Your task to perform on an android device: Open calendar and show me the third week of next month Image 0: 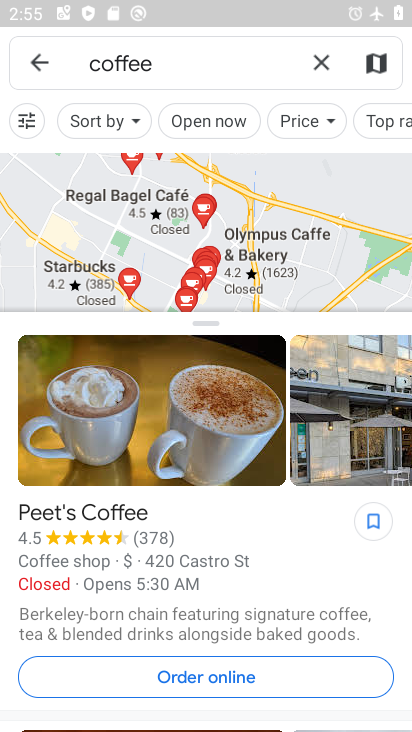
Step 0: press back button
Your task to perform on an android device: Open calendar and show me the third week of next month Image 1: 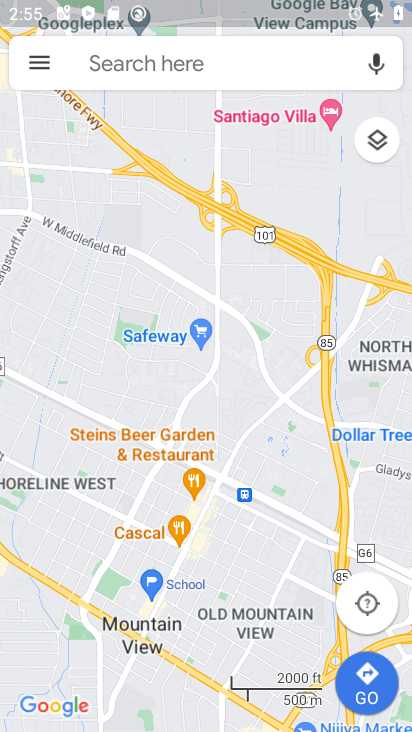
Step 1: press back button
Your task to perform on an android device: Open calendar and show me the third week of next month Image 2: 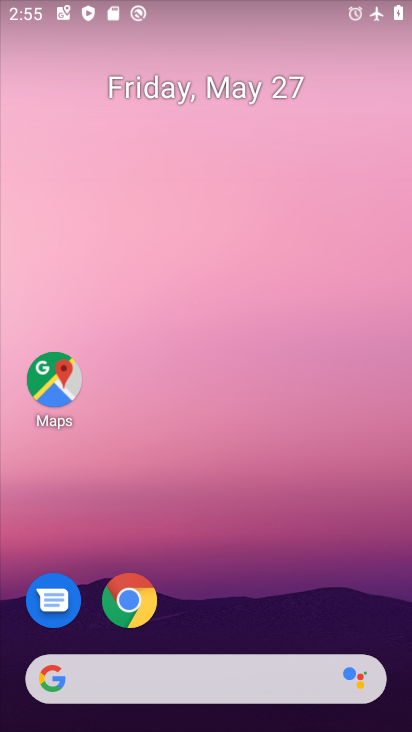
Step 2: drag from (258, 558) to (177, 5)
Your task to perform on an android device: Open calendar and show me the third week of next month Image 3: 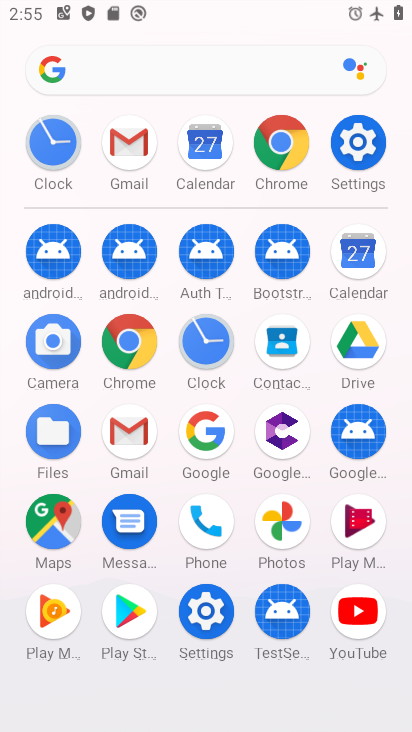
Step 3: drag from (4, 586) to (24, 252)
Your task to perform on an android device: Open calendar and show me the third week of next month Image 4: 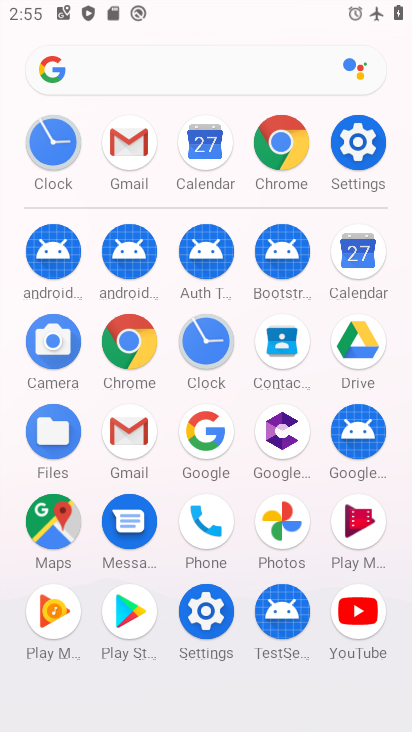
Step 4: click (357, 247)
Your task to perform on an android device: Open calendar and show me the third week of next month Image 5: 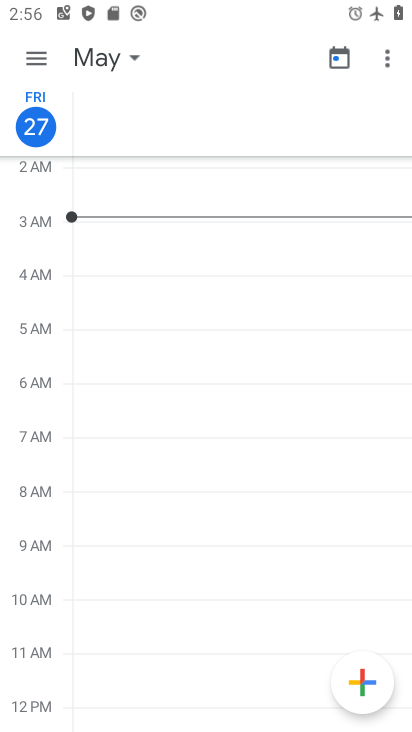
Step 5: click (112, 59)
Your task to perform on an android device: Open calendar and show me the third week of next month Image 6: 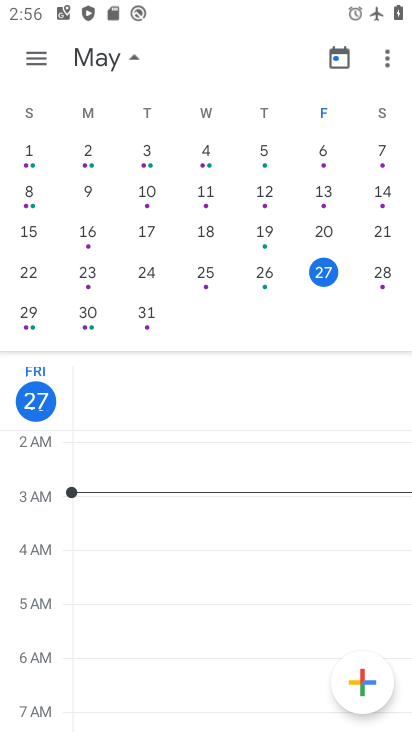
Step 6: drag from (377, 210) to (6, 160)
Your task to perform on an android device: Open calendar and show me the third week of next month Image 7: 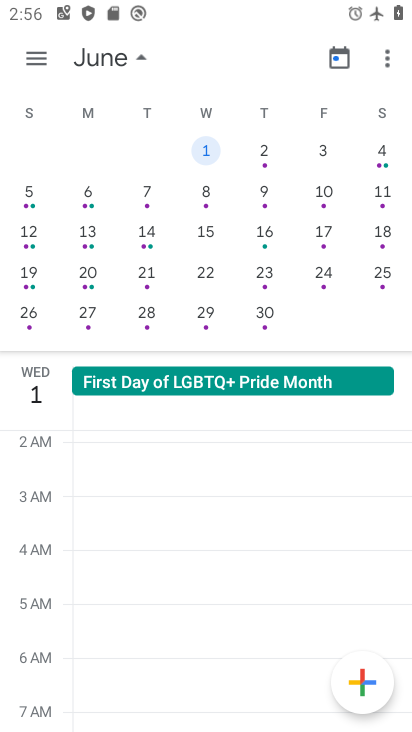
Step 7: click (24, 223)
Your task to perform on an android device: Open calendar and show me the third week of next month Image 8: 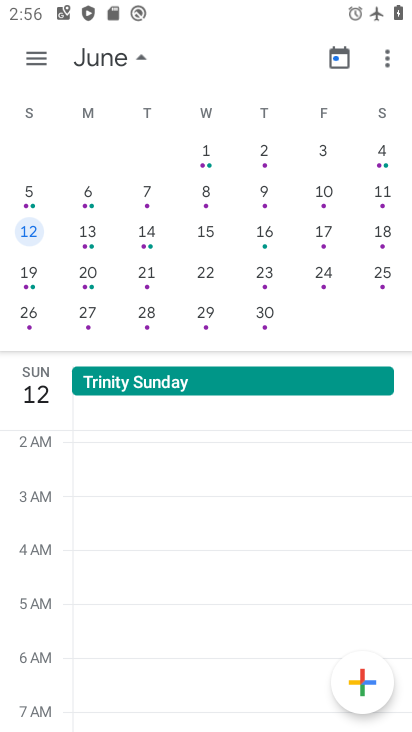
Step 8: click (40, 53)
Your task to perform on an android device: Open calendar and show me the third week of next month Image 9: 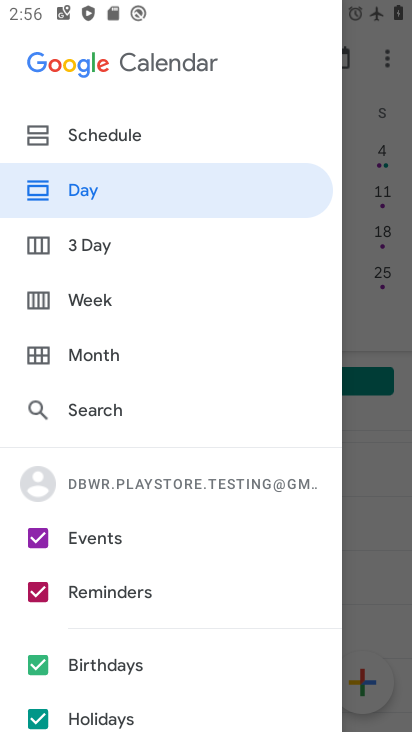
Step 9: click (107, 301)
Your task to perform on an android device: Open calendar and show me the third week of next month Image 10: 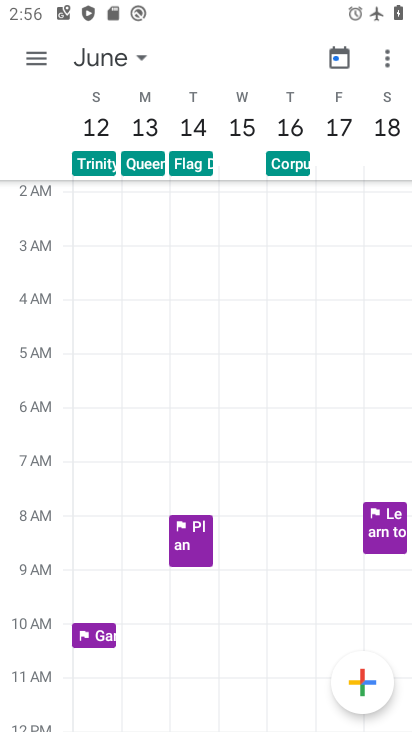
Step 10: task complete